Your task to perform on an android device: Open battery settings Image 0: 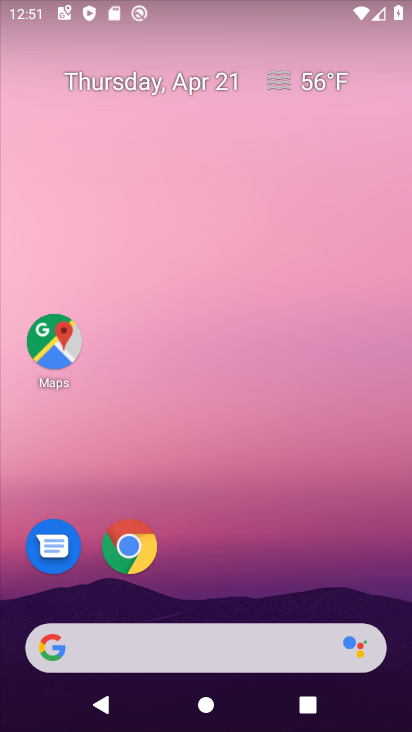
Step 0: drag from (144, 624) to (254, 69)
Your task to perform on an android device: Open battery settings Image 1: 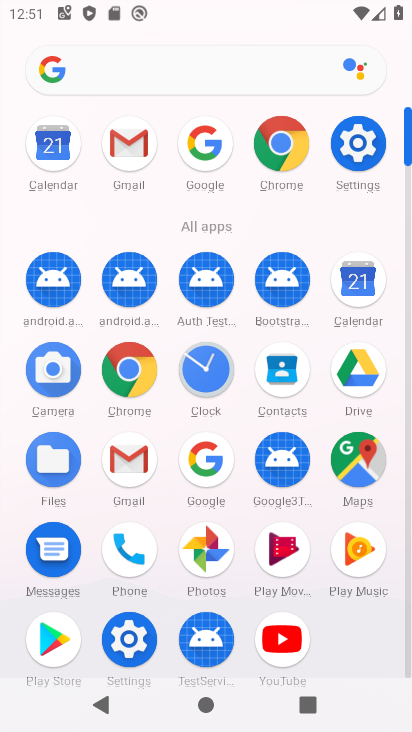
Step 1: click (368, 153)
Your task to perform on an android device: Open battery settings Image 2: 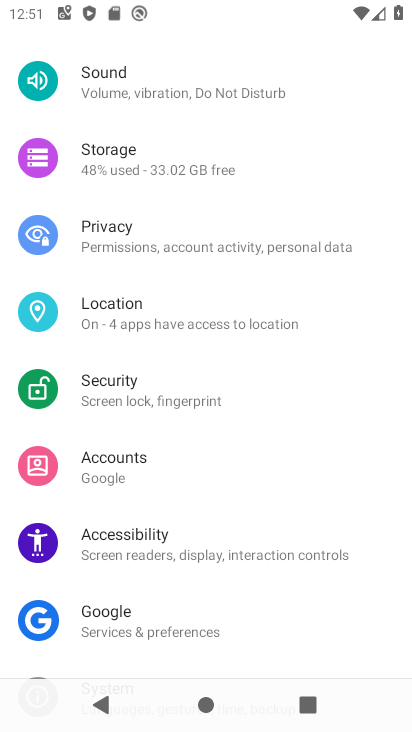
Step 2: drag from (211, 123) to (165, 489)
Your task to perform on an android device: Open battery settings Image 3: 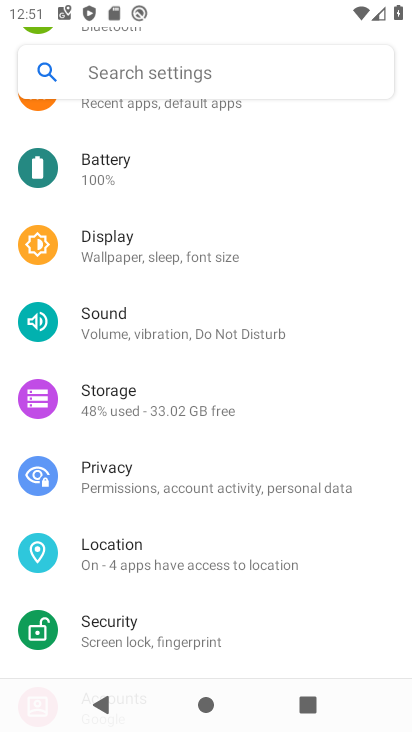
Step 3: click (106, 169)
Your task to perform on an android device: Open battery settings Image 4: 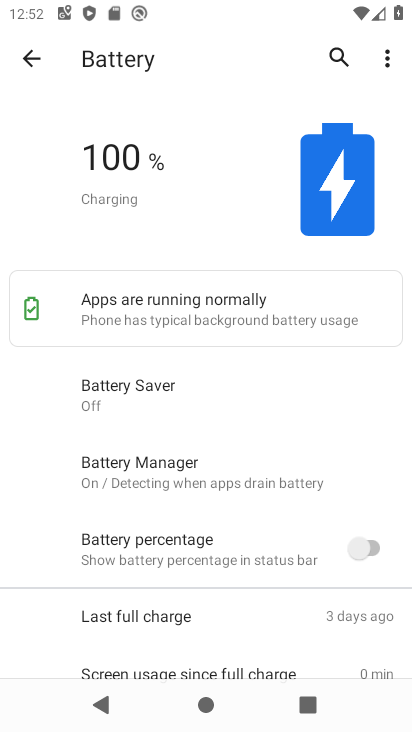
Step 4: task complete